Your task to perform on an android device: Go to settings Image 0: 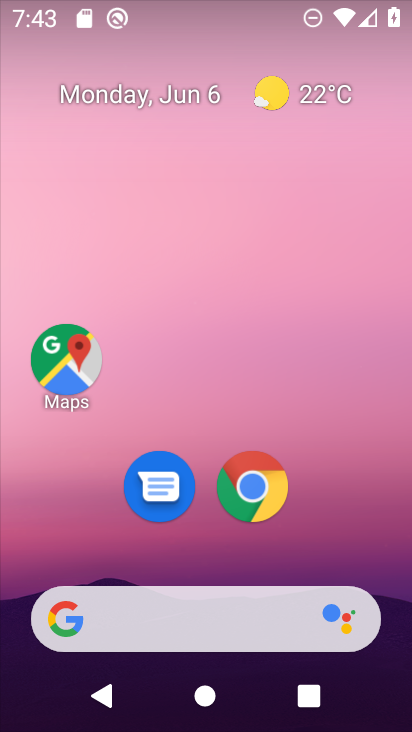
Step 0: drag from (399, 602) to (198, 0)
Your task to perform on an android device: Go to settings Image 1: 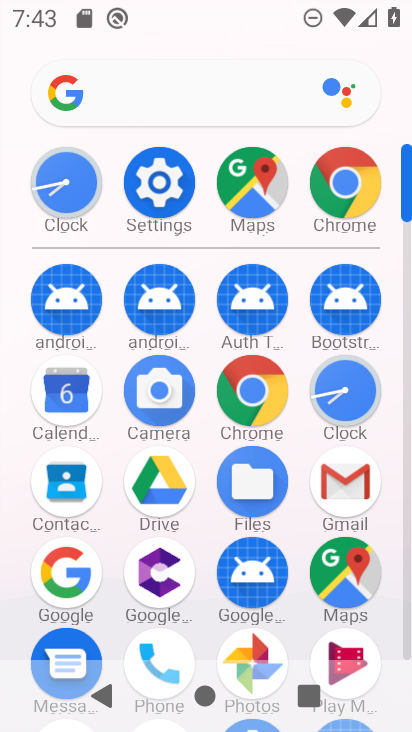
Step 1: click (170, 183)
Your task to perform on an android device: Go to settings Image 2: 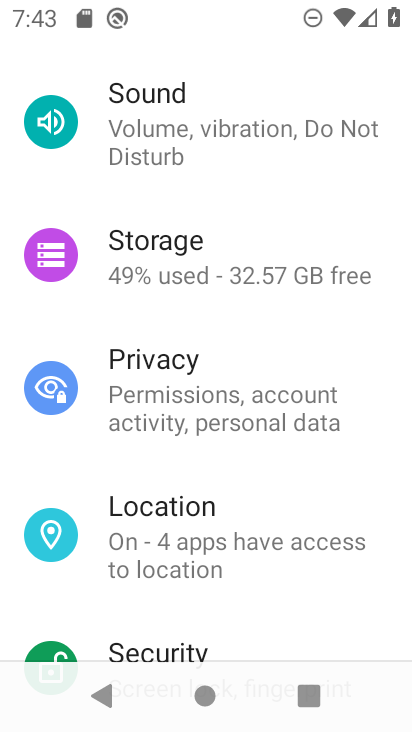
Step 2: task complete